Your task to perform on an android device: When is my next appointment? Image 0: 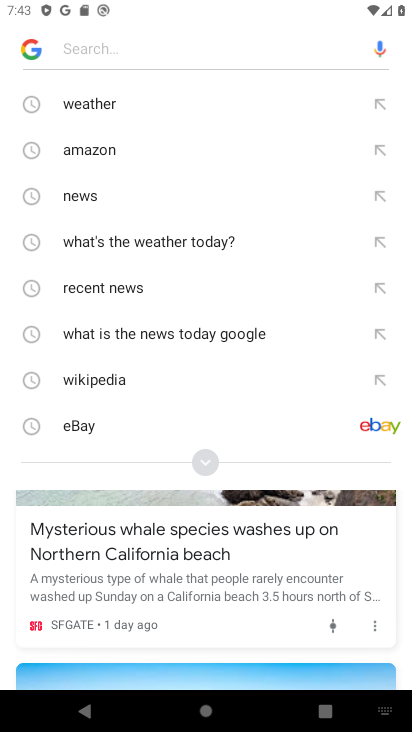
Step 0: press home button
Your task to perform on an android device: When is my next appointment? Image 1: 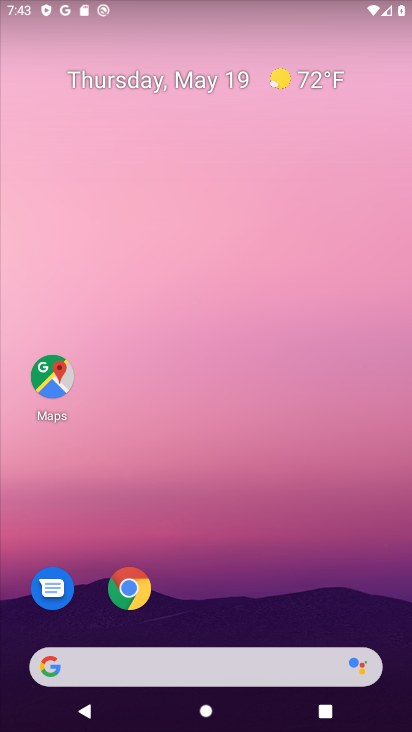
Step 1: drag from (281, 625) to (250, 25)
Your task to perform on an android device: When is my next appointment? Image 2: 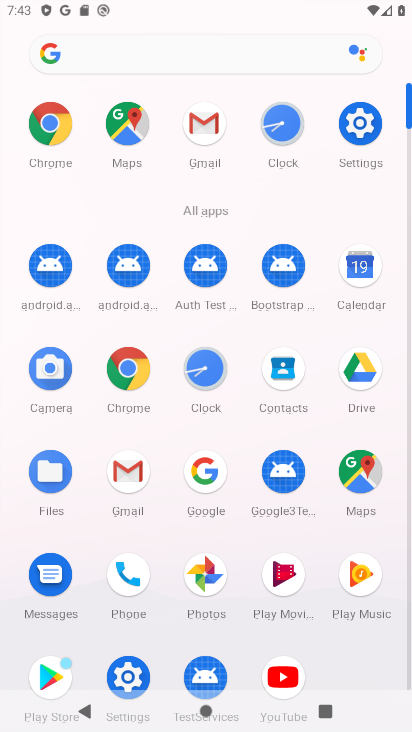
Step 2: click (360, 277)
Your task to perform on an android device: When is my next appointment? Image 3: 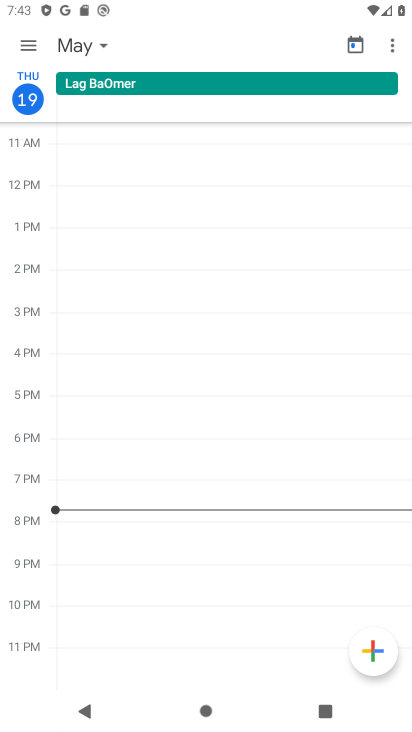
Step 3: click (32, 43)
Your task to perform on an android device: When is my next appointment? Image 4: 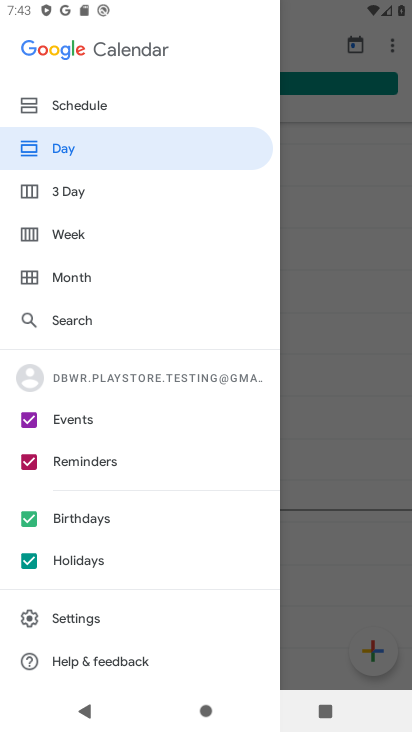
Step 4: click (83, 103)
Your task to perform on an android device: When is my next appointment? Image 5: 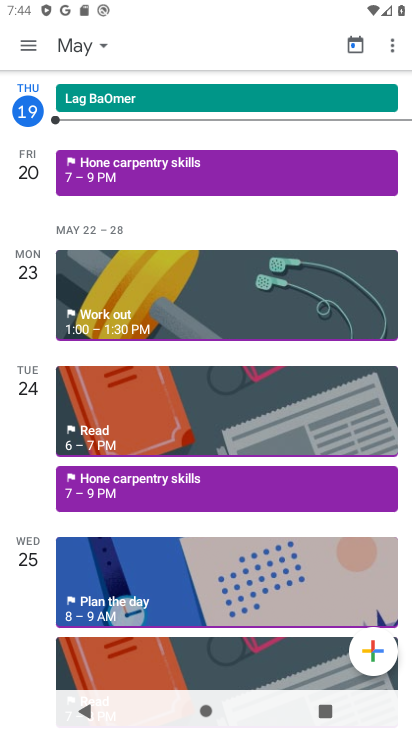
Step 5: task complete